Your task to perform on an android device: stop showing notifications on the lock screen Image 0: 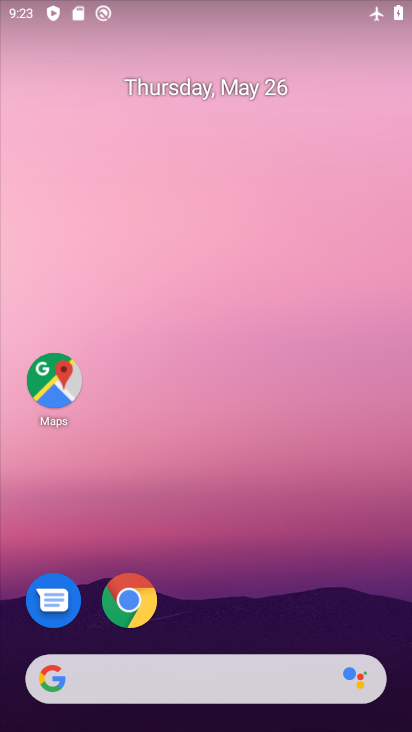
Step 0: drag from (280, 569) to (301, 80)
Your task to perform on an android device: stop showing notifications on the lock screen Image 1: 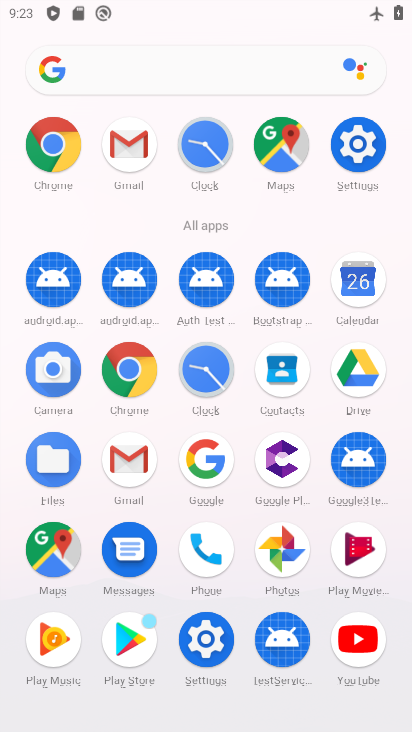
Step 1: click (361, 148)
Your task to perform on an android device: stop showing notifications on the lock screen Image 2: 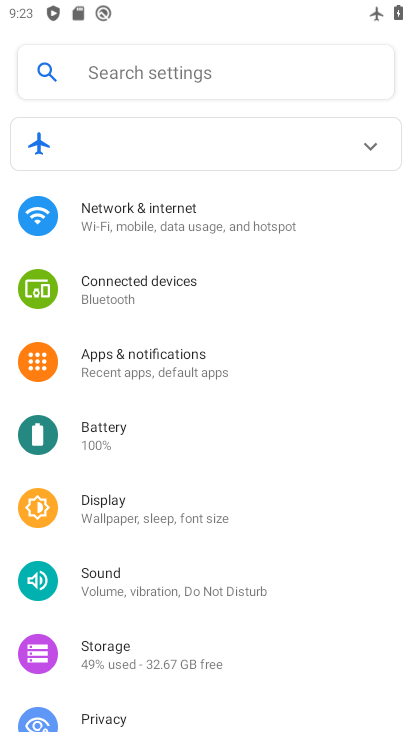
Step 2: click (183, 358)
Your task to perform on an android device: stop showing notifications on the lock screen Image 3: 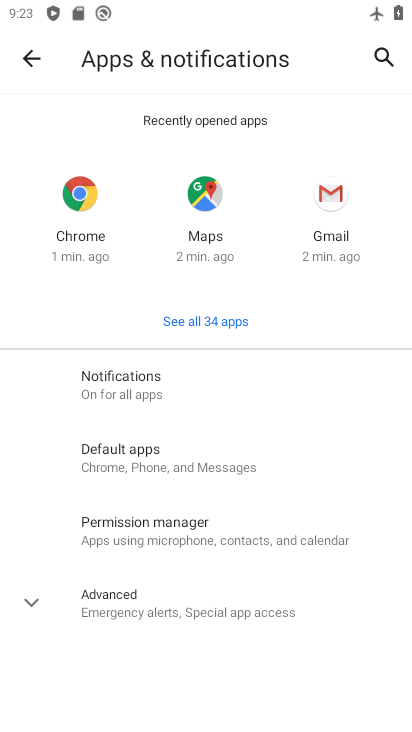
Step 3: click (183, 362)
Your task to perform on an android device: stop showing notifications on the lock screen Image 4: 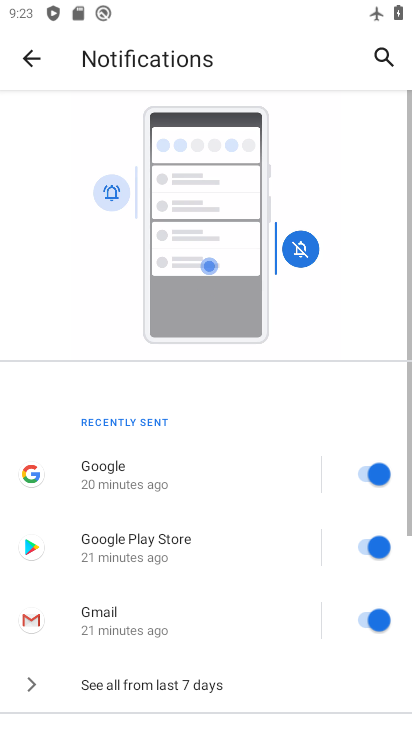
Step 4: drag from (217, 458) to (139, 4)
Your task to perform on an android device: stop showing notifications on the lock screen Image 5: 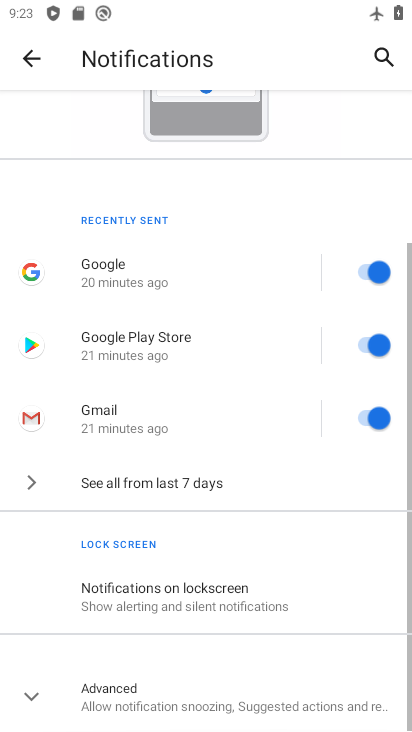
Step 5: drag from (292, 521) to (384, 57)
Your task to perform on an android device: stop showing notifications on the lock screen Image 6: 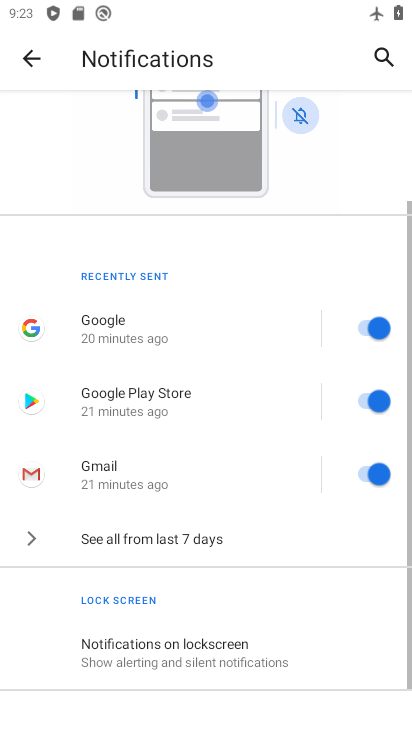
Step 6: click (178, 588)
Your task to perform on an android device: stop showing notifications on the lock screen Image 7: 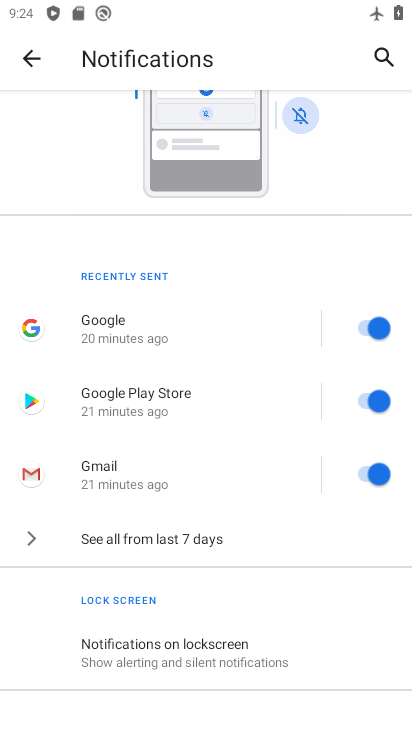
Step 7: click (176, 648)
Your task to perform on an android device: stop showing notifications on the lock screen Image 8: 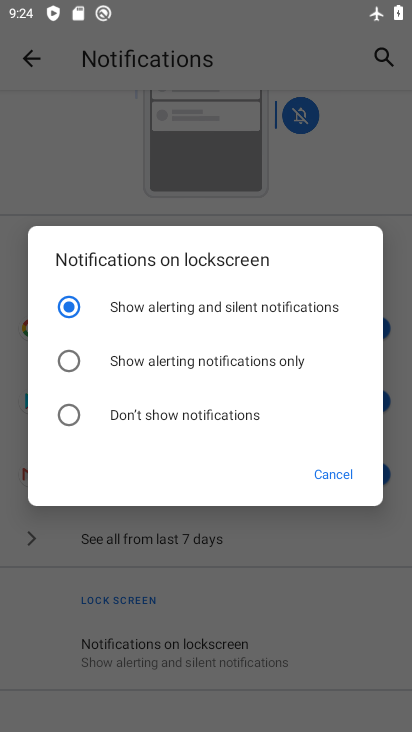
Step 8: click (230, 415)
Your task to perform on an android device: stop showing notifications on the lock screen Image 9: 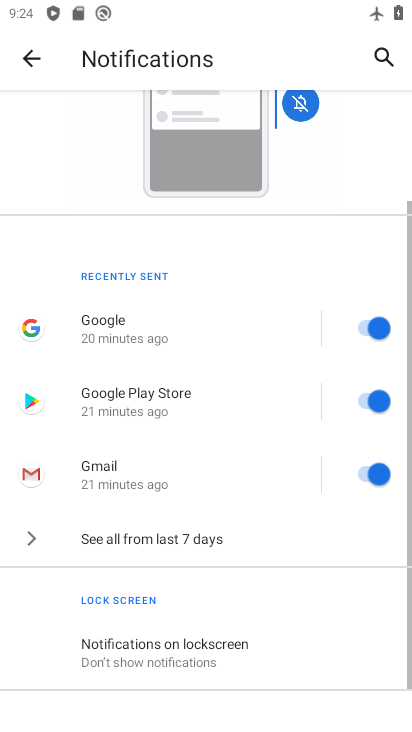
Step 9: task complete